Your task to perform on an android device: change your default location settings in chrome Image 0: 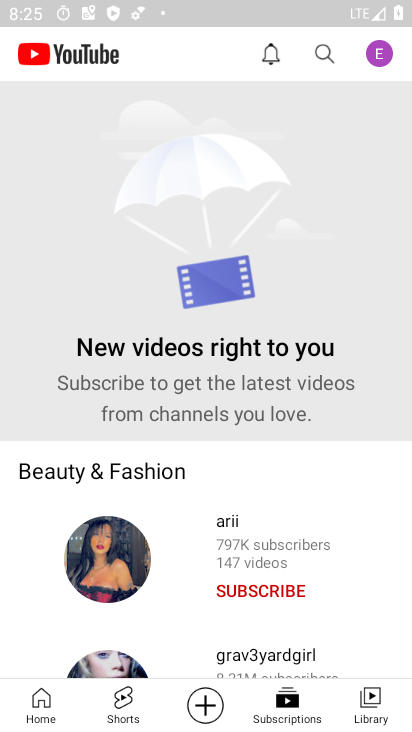
Step 0: press home button
Your task to perform on an android device: change your default location settings in chrome Image 1: 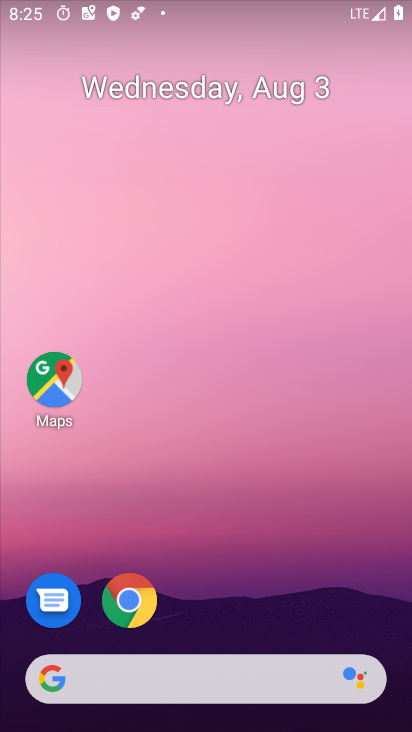
Step 1: click (132, 610)
Your task to perform on an android device: change your default location settings in chrome Image 2: 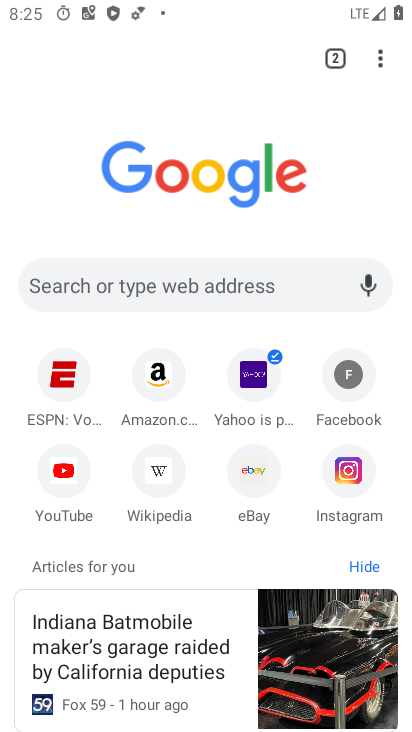
Step 2: click (380, 62)
Your task to perform on an android device: change your default location settings in chrome Image 3: 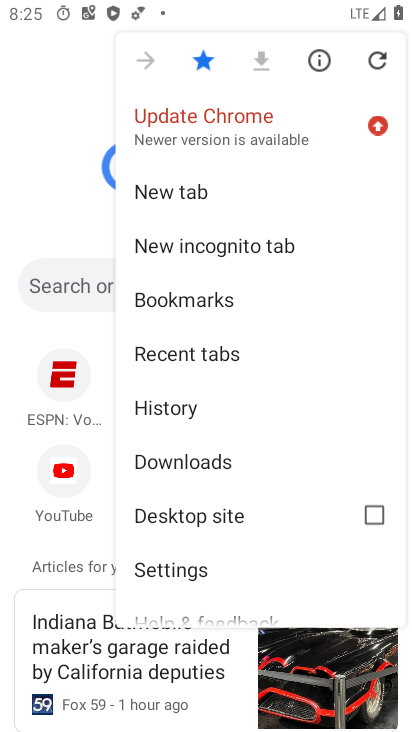
Step 3: click (197, 566)
Your task to perform on an android device: change your default location settings in chrome Image 4: 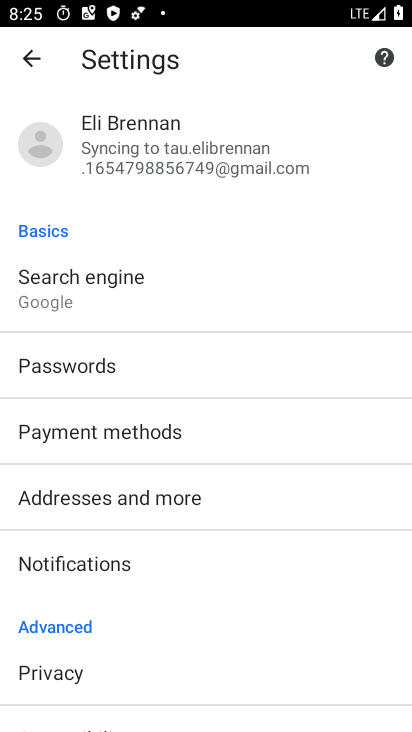
Step 4: drag from (95, 589) to (103, 348)
Your task to perform on an android device: change your default location settings in chrome Image 5: 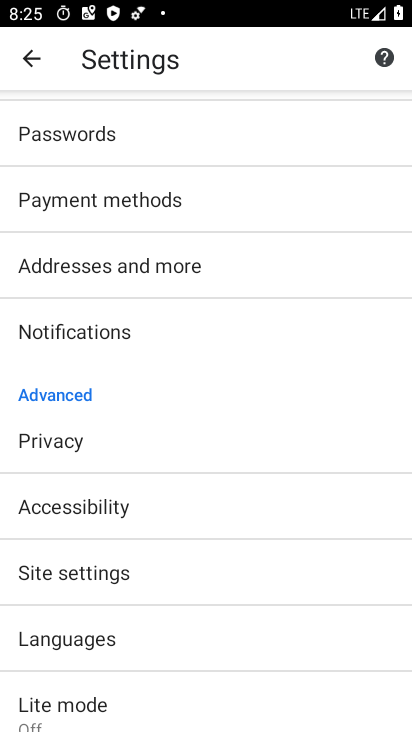
Step 5: click (71, 571)
Your task to perform on an android device: change your default location settings in chrome Image 6: 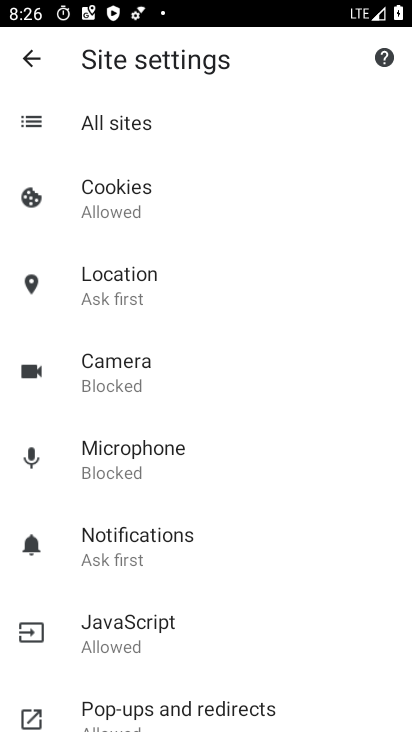
Step 6: click (142, 297)
Your task to perform on an android device: change your default location settings in chrome Image 7: 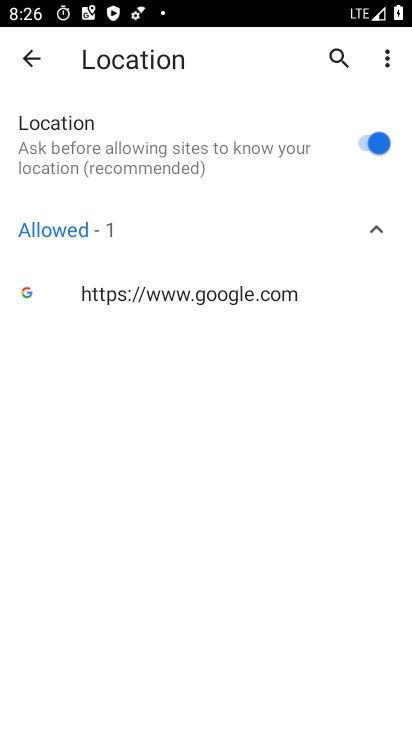
Step 7: click (315, 148)
Your task to perform on an android device: change your default location settings in chrome Image 8: 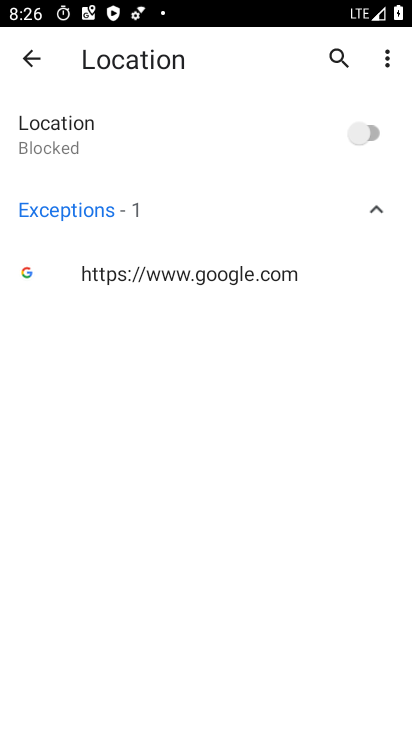
Step 8: task complete